Your task to perform on an android device: What's on the menu at Domino's? Image 0: 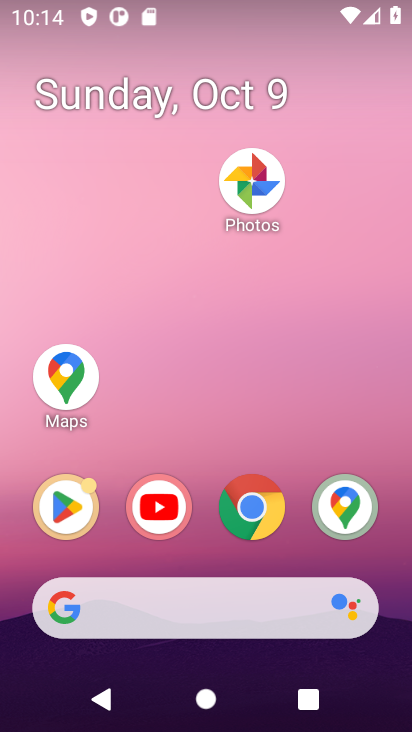
Step 0: drag from (203, 555) to (258, 16)
Your task to perform on an android device: What's on the menu at Domino's? Image 1: 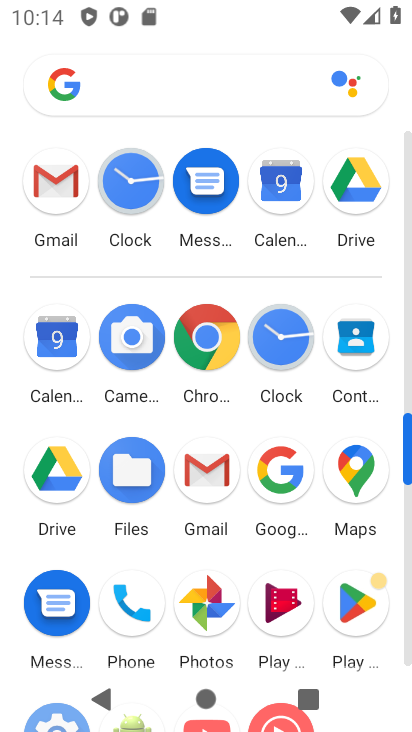
Step 1: click (204, 333)
Your task to perform on an android device: What's on the menu at Domino's? Image 2: 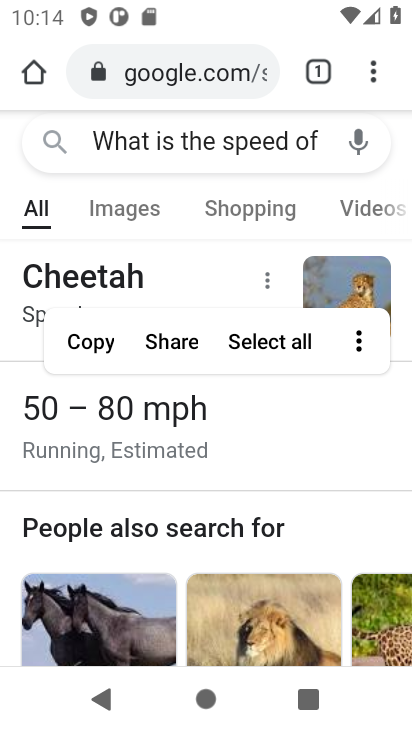
Step 2: click (225, 71)
Your task to perform on an android device: What's on the menu at Domino's? Image 3: 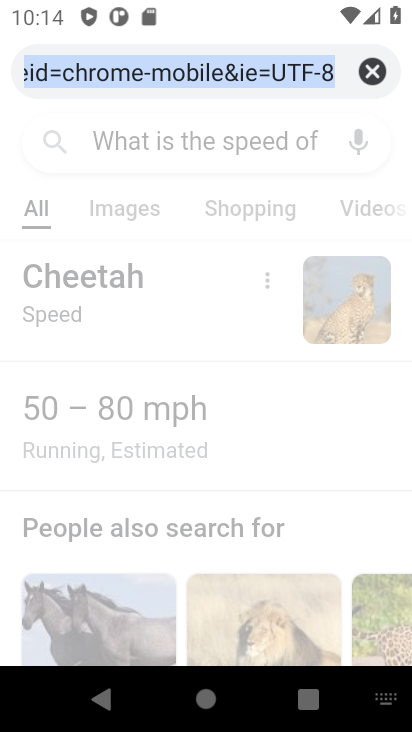
Step 3: type "What's on the menu at Domino's?"
Your task to perform on an android device: What's on the menu at Domino's? Image 4: 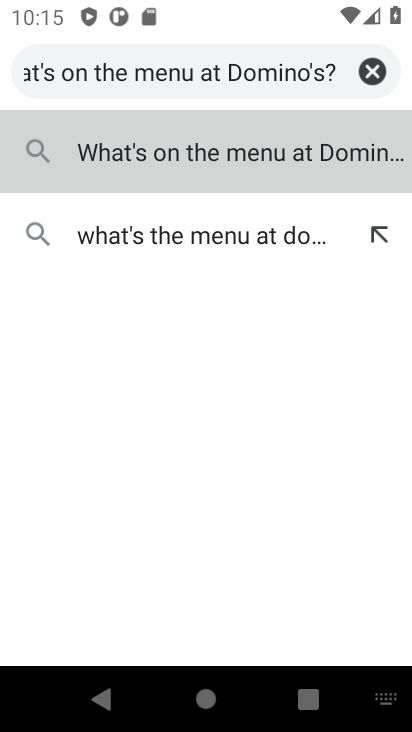
Step 4: press enter
Your task to perform on an android device: What's on the menu at Domino's? Image 5: 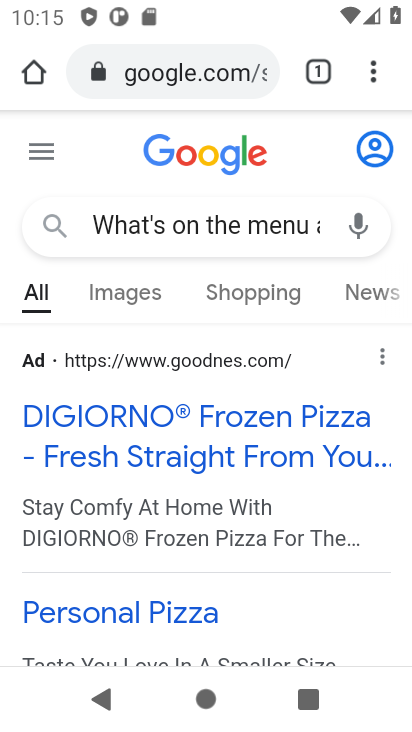
Step 5: drag from (225, 603) to (266, 214)
Your task to perform on an android device: What's on the menu at Domino's? Image 6: 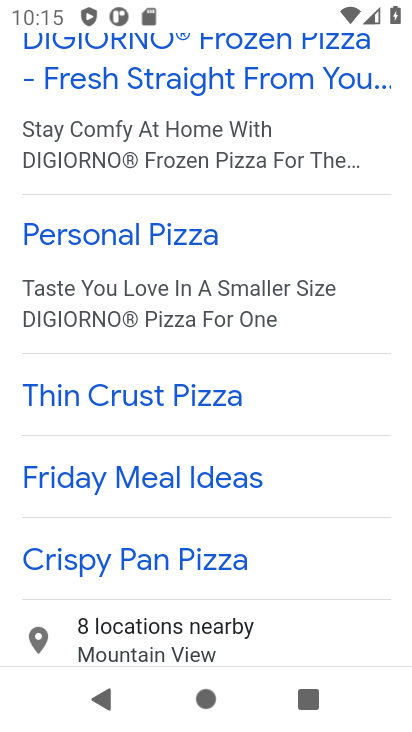
Step 6: drag from (317, 537) to (357, 153)
Your task to perform on an android device: What's on the menu at Domino's? Image 7: 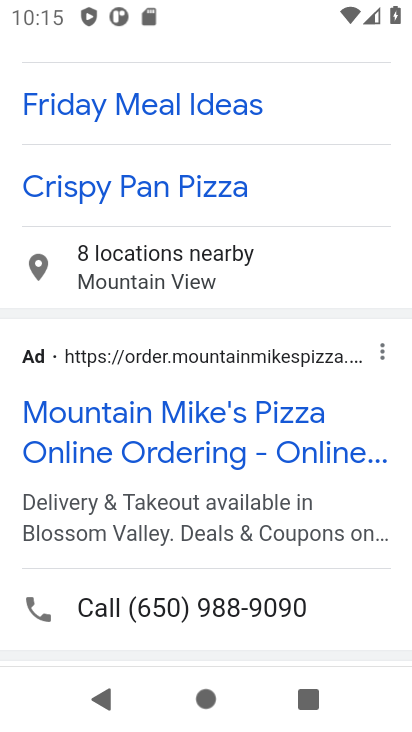
Step 7: drag from (291, 503) to (309, 19)
Your task to perform on an android device: What's on the menu at Domino's? Image 8: 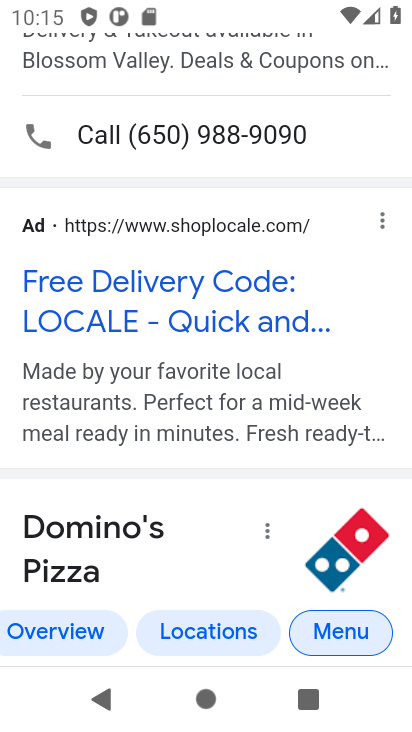
Step 8: drag from (233, 530) to (255, 106)
Your task to perform on an android device: What's on the menu at Domino's? Image 9: 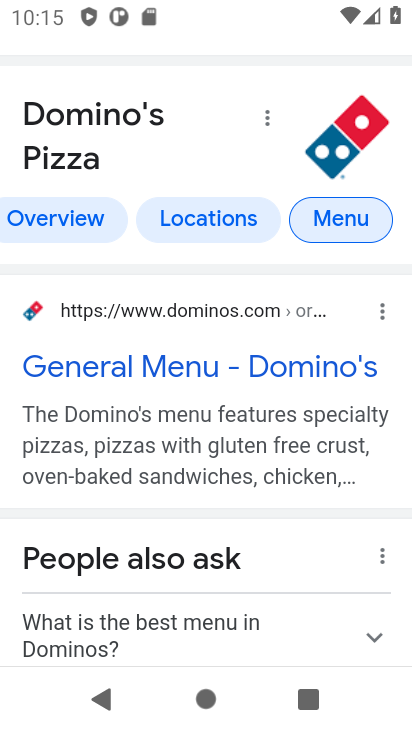
Step 9: click (184, 371)
Your task to perform on an android device: What's on the menu at Domino's? Image 10: 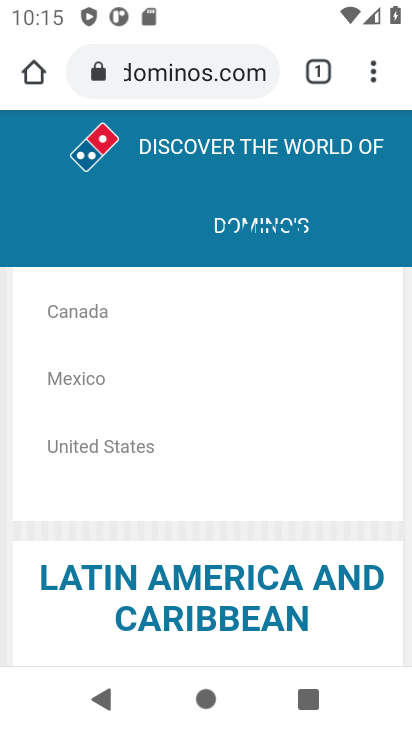
Step 10: drag from (322, 491) to (341, 624)
Your task to perform on an android device: What's on the menu at Domino's? Image 11: 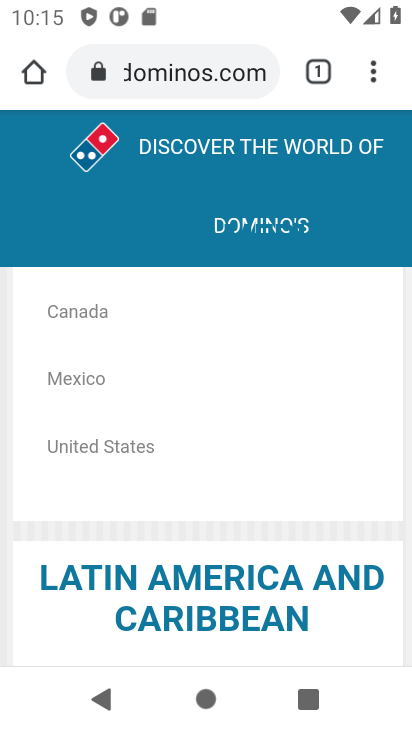
Step 11: click (79, 306)
Your task to perform on an android device: What's on the menu at Domino's? Image 12: 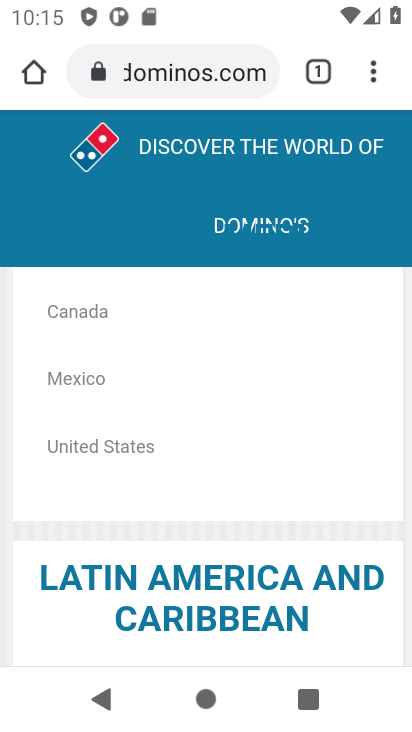
Step 12: click (76, 308)
Your task to perform on an android device: What's on the menu at Domino's? Image 13: 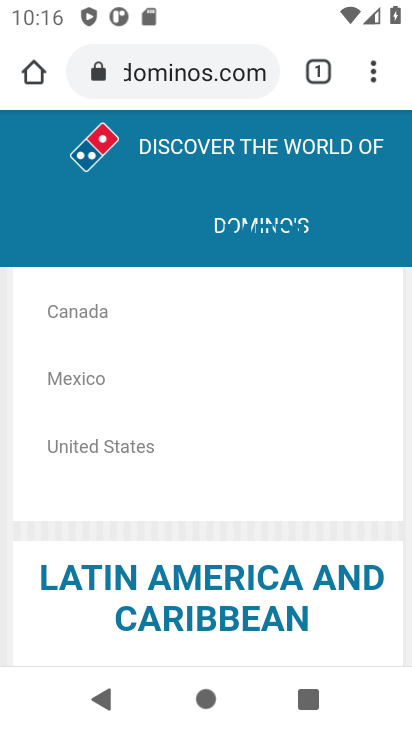
Step 13: task complete